Your task to perform on an android device: What is the capital of Brazil? Image 0: 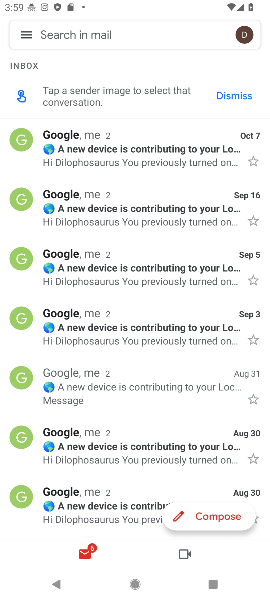
Step 0: press home button
Your task to perform on an android device: What is the capital of Brazil? Image 1: 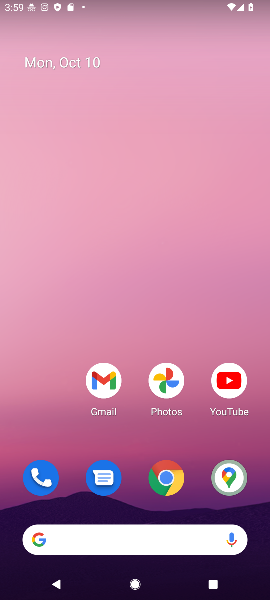
Step 1: click (169, 480)
Your task to perform on an android device: What is the capital of Brazil? Image 2: 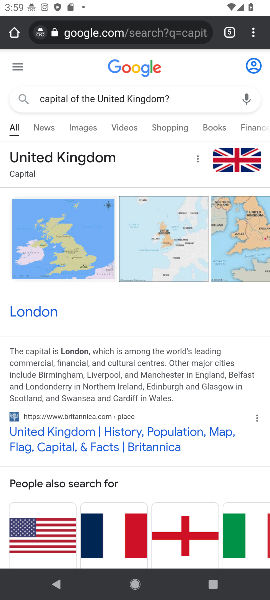
Step 2: click (142, 33)
Your task to perform on an android device: What is the capital of Brazil? Image 3: 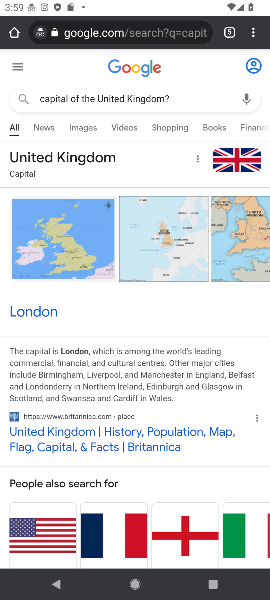
Step 3: click (142, 33)
Your task to perform on an android device: What is the capital of Brazil? Image 4: 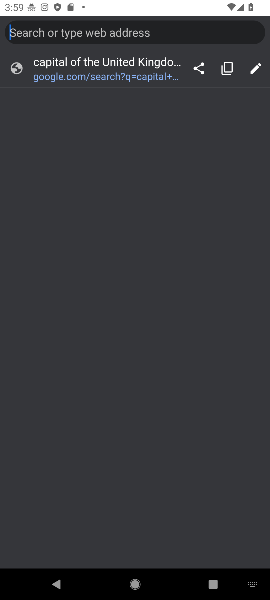
Step 4: type "capital of Brazil?"
Your task to perform on an android device: What is the capital of Brazil? Image 5: 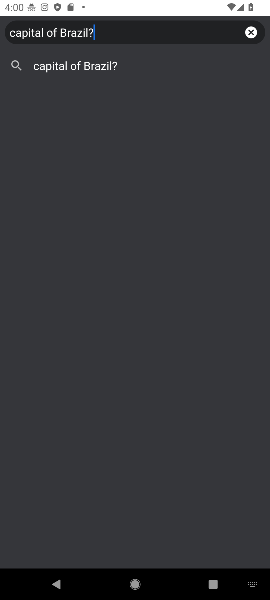
Step 5: click (83, 70)
Your task to perform on an android device: What is the capital of Brazil? Image 6: 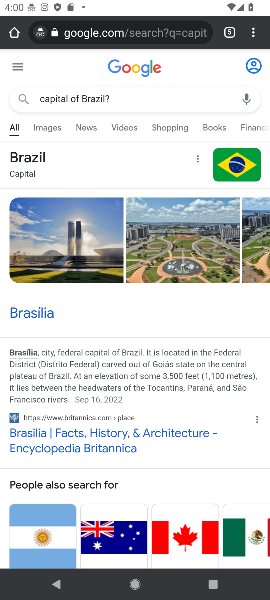
Step 6: task complete